Your task to perform on an android device: turn on translation in the chrome app Image 0: 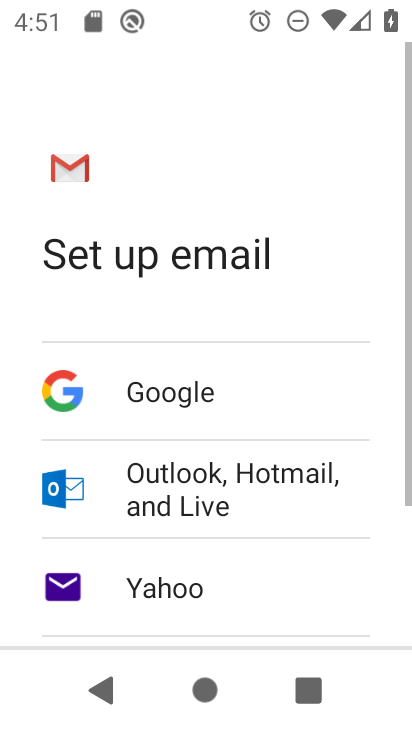
Step 0: press home button
Your task to perform on an android device: turn on translation in the chrome app Image 1: 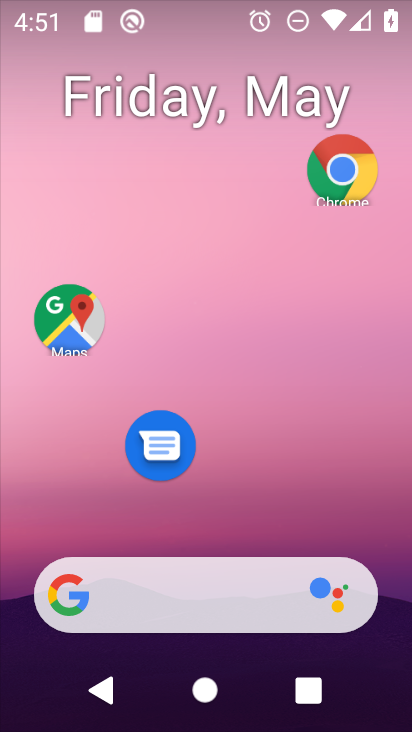
Step 1: click (129, 591)
Your task to perform on an android device: turn on translation in the chrome app Image 2: 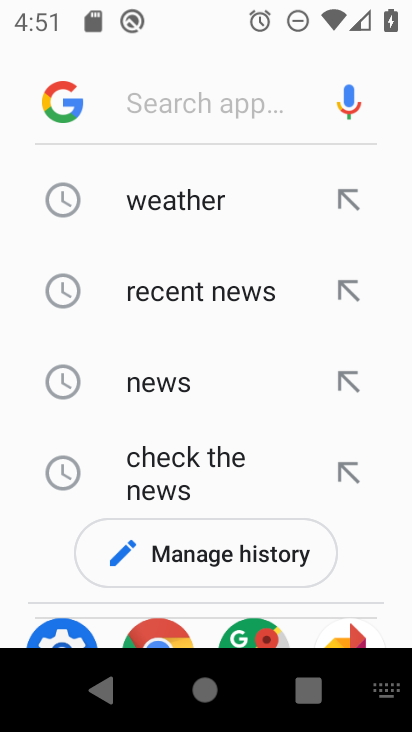
Step 2: click (191, 193)
Your task to perform on an android device: turn on translation in the chrome app Image 3: 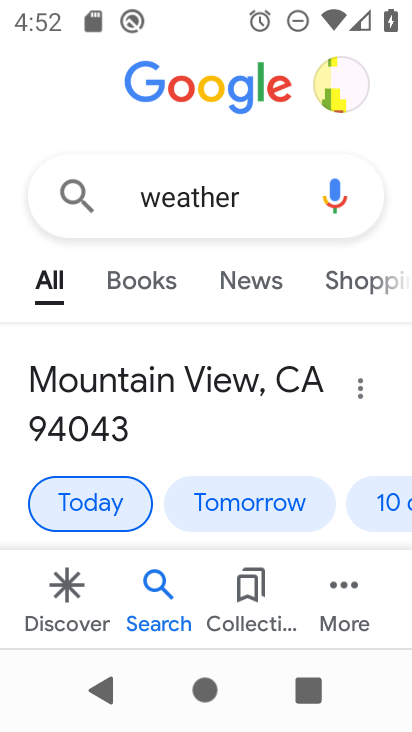
Step 3: drag from (246, 431) to (266, 47)
Your task to perform on an android device: turn on translation in the chrome app Image 4: 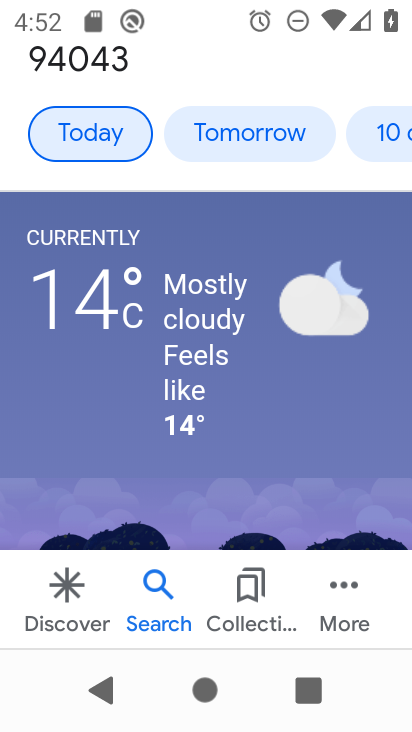
Step 4: press home button
Your task to perform on an android device: turn on translation in the chrome app Image 5: 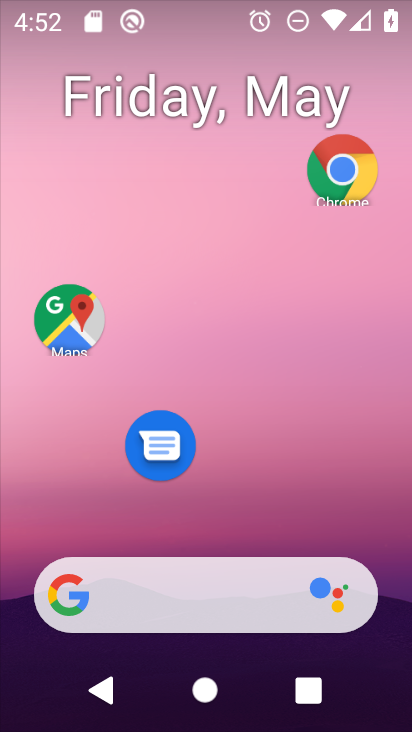
Step 5: drag from (267, 496) to (198, 9)
Your task to perform on an android device: turn on translation in the chrome app Image 6: 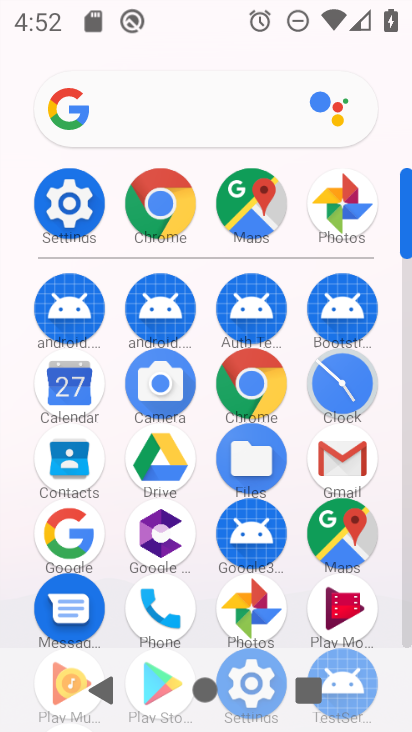
Step 6: click (159, 198)
Your task to perform on an android device: turn on translation in the chrome app Image 7: 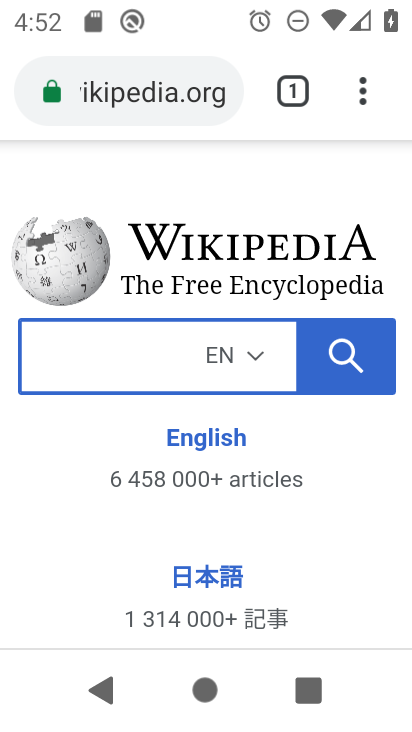
Step 7: click (361, 89)
Your task to perform on an android device: turn on translation in the chrome app Image 8: 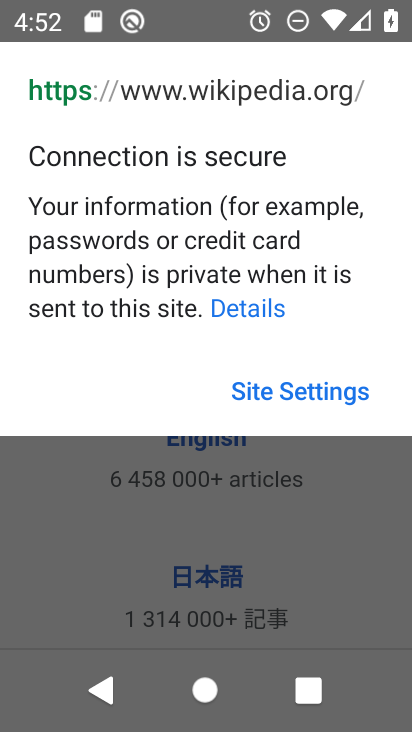
Step 8: click (119, 516)
Your task to perform on an android device: turn on translation in the chrome app Image 9: 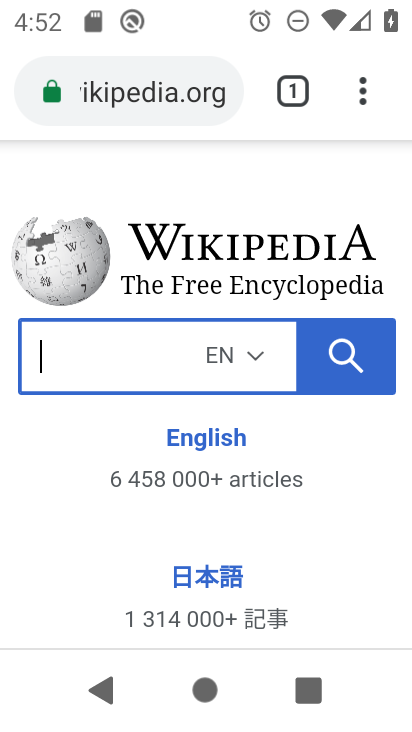
Step 9: click (363, 91)
Your task to perform on an android device: turn on translation in the chrome app Image 10: 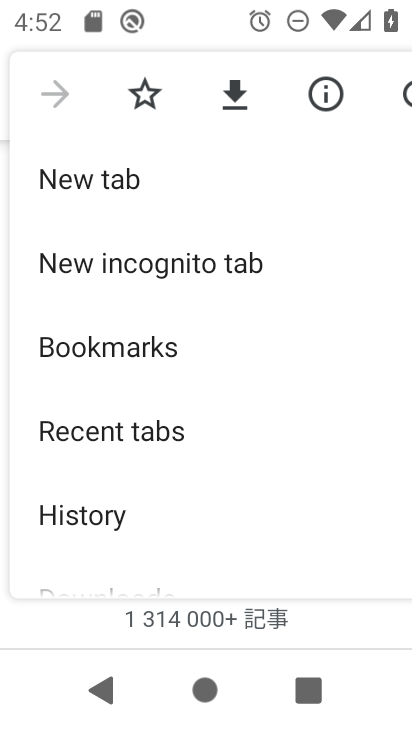
Step 10: drag from (148, 508) to (145, 160)
Your task to perform on an android device: turn on translation in the chrome app Image 11: 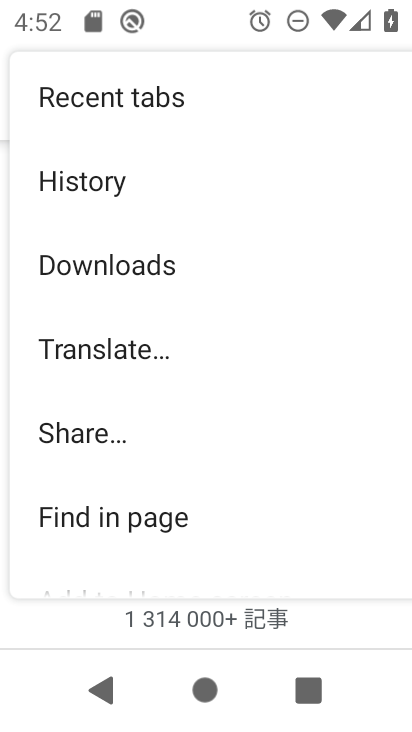
Step 11: drag from (138, 546) to (157, 260)
Your task to perform on an android device: turn on translation in the chrome app Image 12: 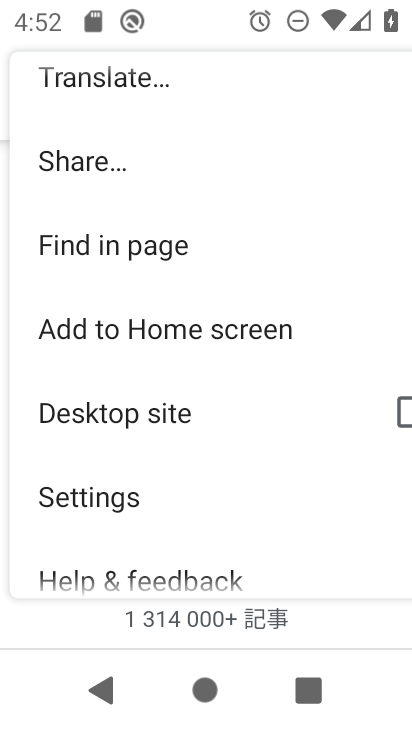
Step 12: click (104, 490)
Your task to perform on an android device: turn on translation in the chrome app Image 13: 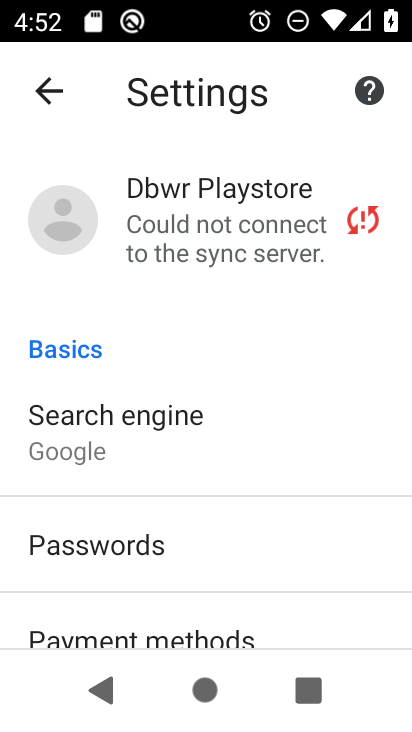
Step 13: drag from (110, 567) to (211, 81)
Your task to perform on an android device: turn on translation in the chrome app Image 14: 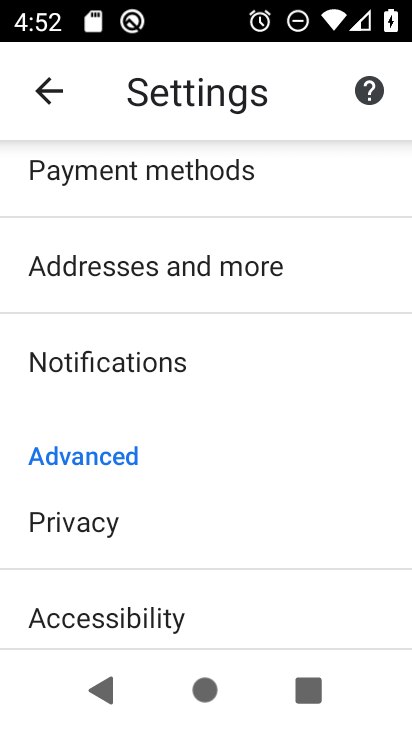
Step 14: drag from (186, 545) to (171, 242)
Your task to perform on an android device: turn on translation in the chrome app Image 15: 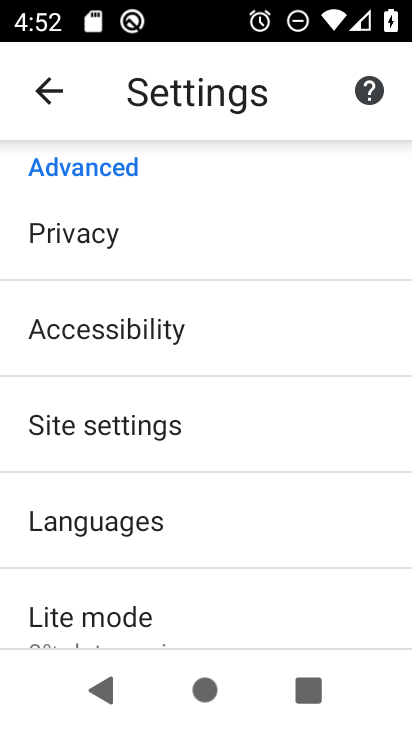
Step 15: click (122, 523)
Your task to perform on an android device: turn on translation in the chrome app Image 16: 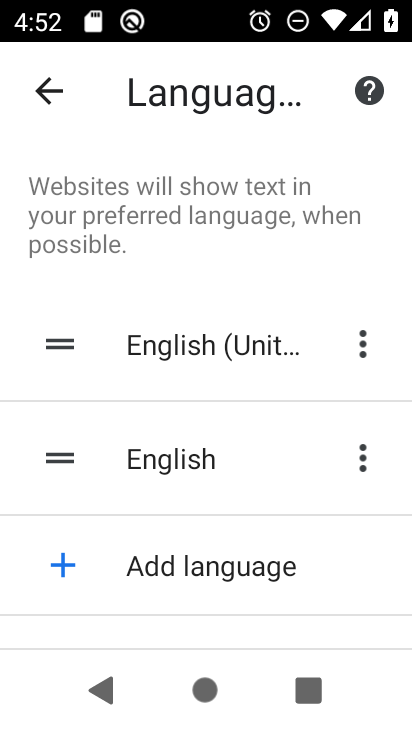
Step 16: drag from (235, 588) to (234, 190)
Your task to perform on an android device: turn on translation in the chrome app Image 17: 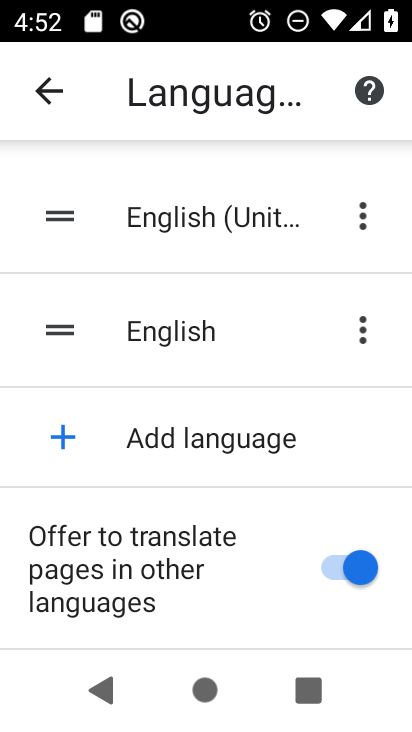
Step 17: click (326, 574)
Your task to perform on an android device: turn on translation in the chrome app Image 18: 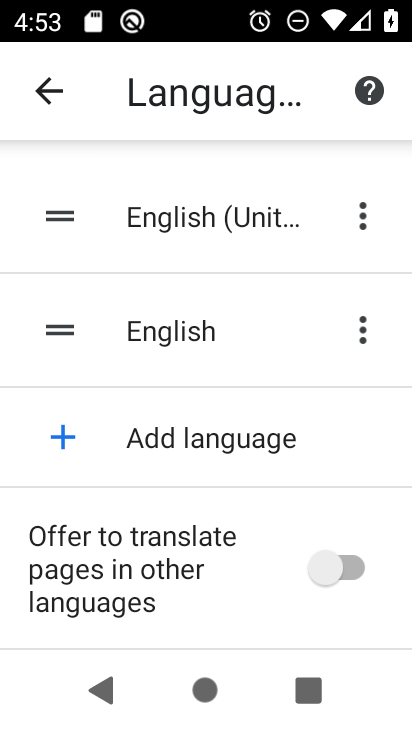
Step 18: task complete